Your task to perform on an android device: find photos in the google photos app Image 0: 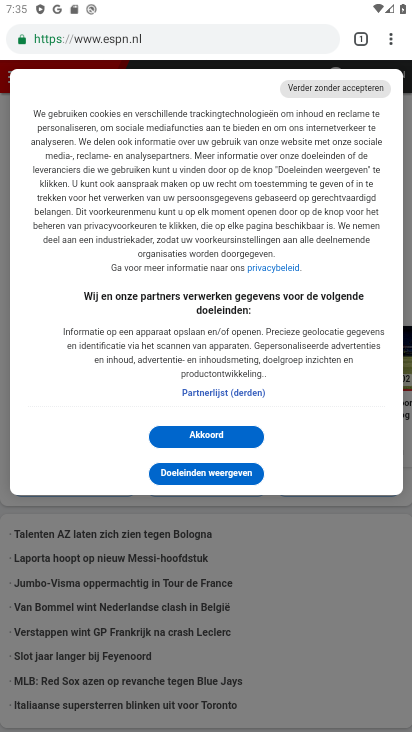
Step 0: press home button
Your task to perform on an android device: find photos in the google photos app Image 1: 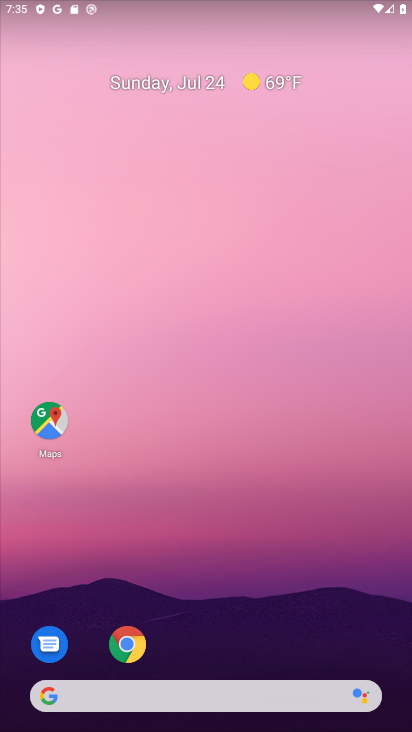
Step 1: drag from (172, 680) to (183, 223)
Your task to perform on an android device: find photos in the google photos app Image 2: 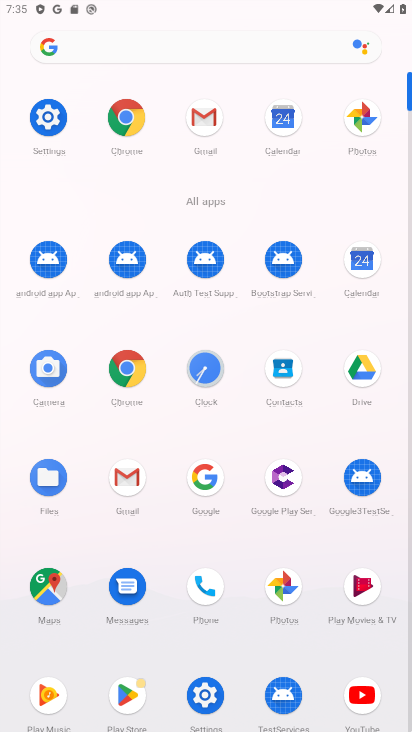
Step 2: click (283, 587)
Your task to perform on an android device: find photos in the google photos app Image 3: 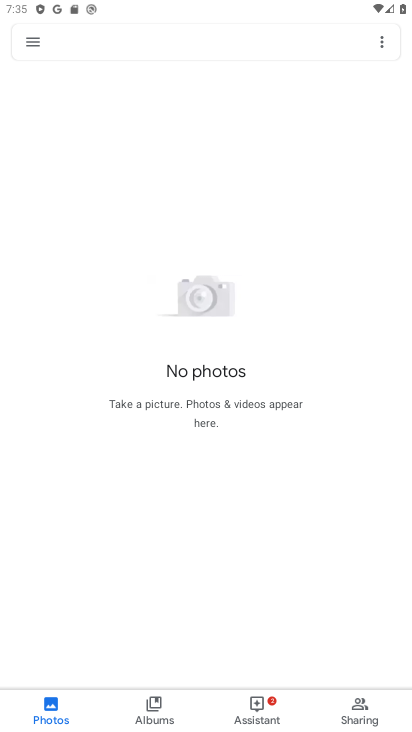
Step 3: task complete